Your task to perform on an android device: Open Maps and search for coffee Image 0: 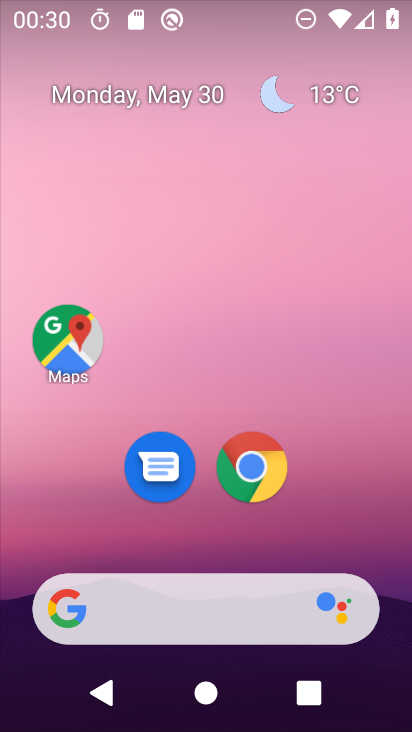
Step 0: click (64, 361)
Your task to perform on an android device: Open Maps and search for coffee Image 1: 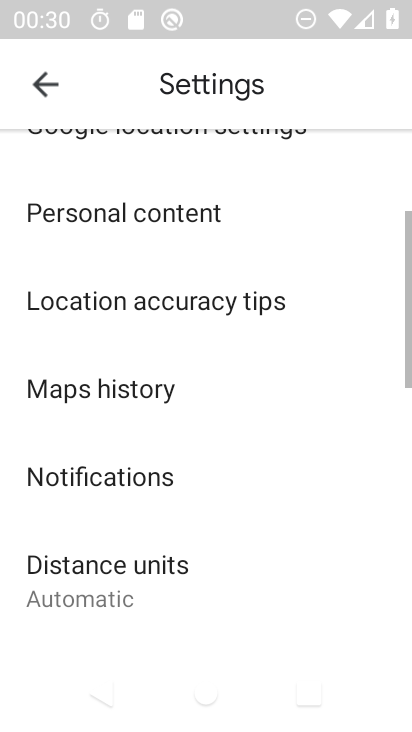
Step 1: click (56, 84)
Your task to perform on an android device: Open Maps and search for coffee Image 2: 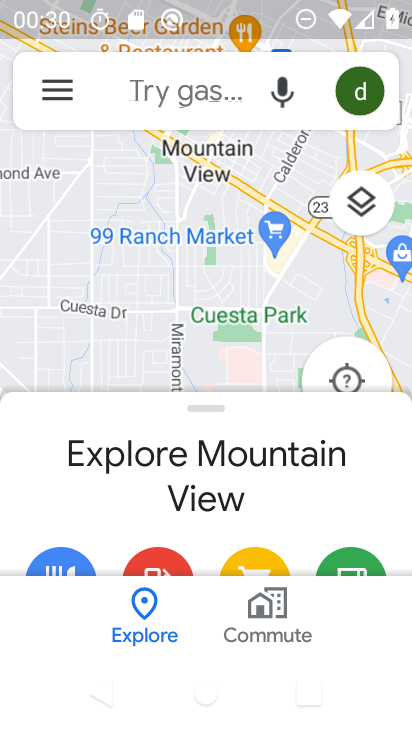
Step 2: click (163, 115)
Your task to perform on an android device: Open Maps and search for coffee Image 3: 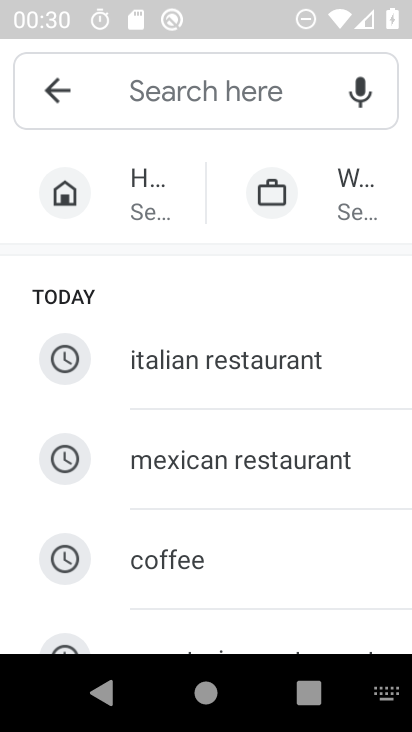
Step 3: click (181, 549)
Your task to perform on an android device: Open Maps and search for coffee Image 4: 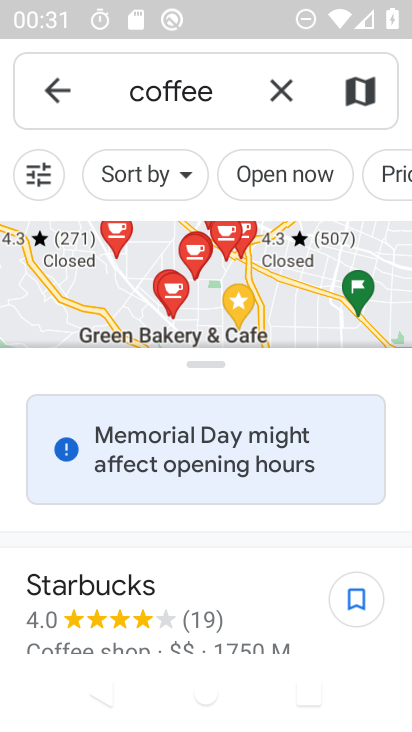
Step 4: task complete